Your task to perform on an android device: find photos in the google photos app Image 0: 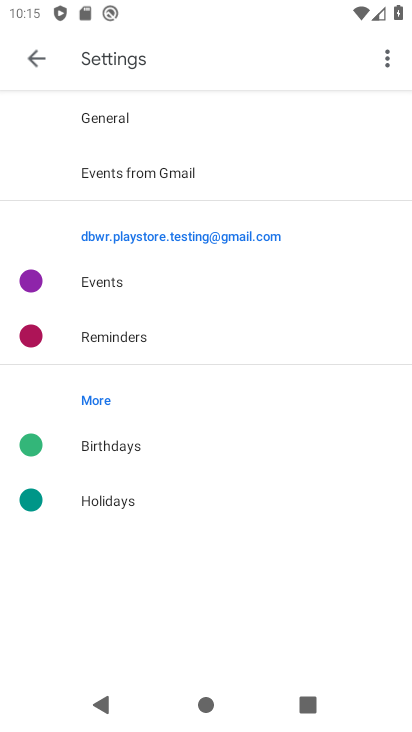
Step 0: press home button
Your task to perform on an android device: find photos in the google photos app Image 1: 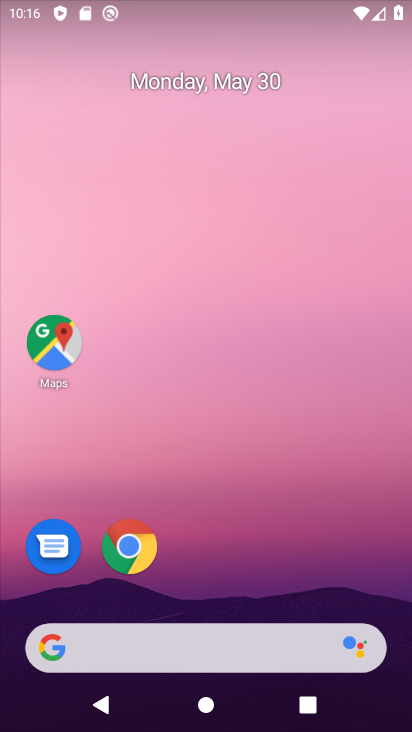
Step 1: drag from (199, 610) to (249, 81)
Your task to perform on an android device: find photos in the google photos app Image 2: 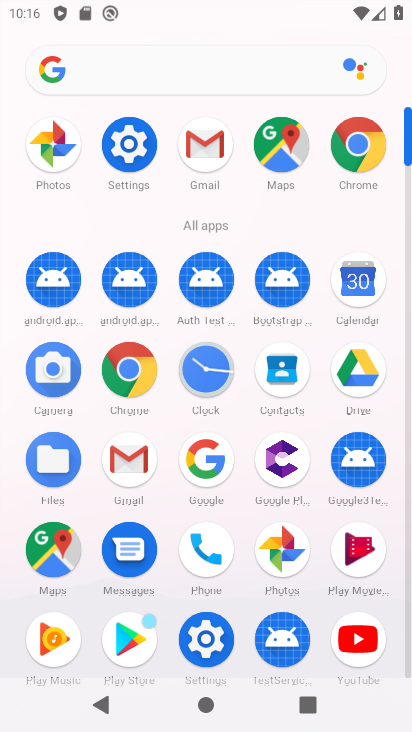
Step 2: click (279, 540)
Your task to perform on an android device: find photos in the google photos app Image 3: 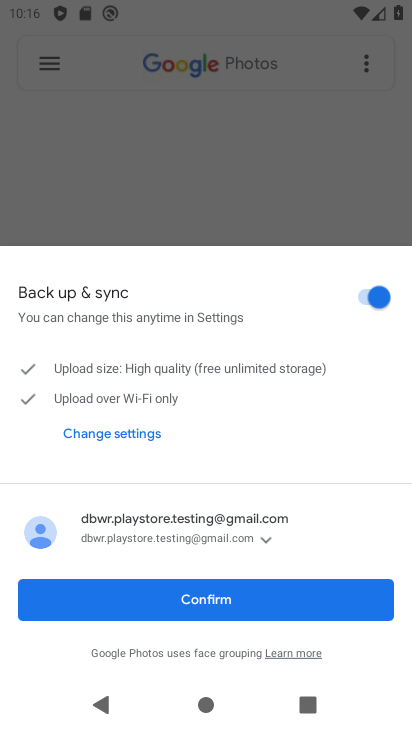
Step 3: click (224, 602)
Your task to perform on an android device: find photos in the google photos app Image 4: 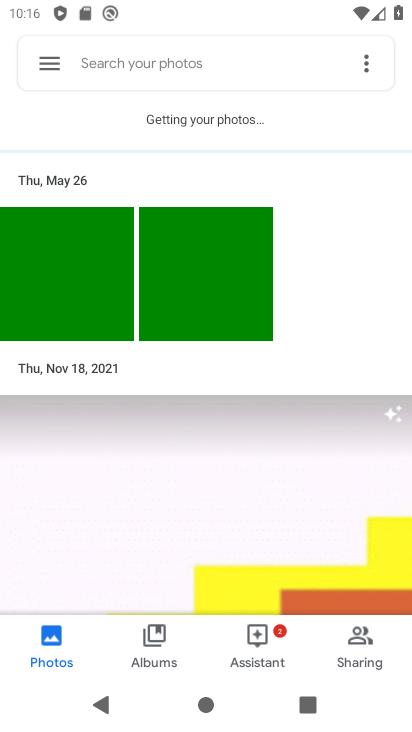
Step 4: task complete